Your task to perform on an android device: Search for "lenovo thinkpad" on bestbuy.com, select the first entry, and add it to the cart. Image 0: 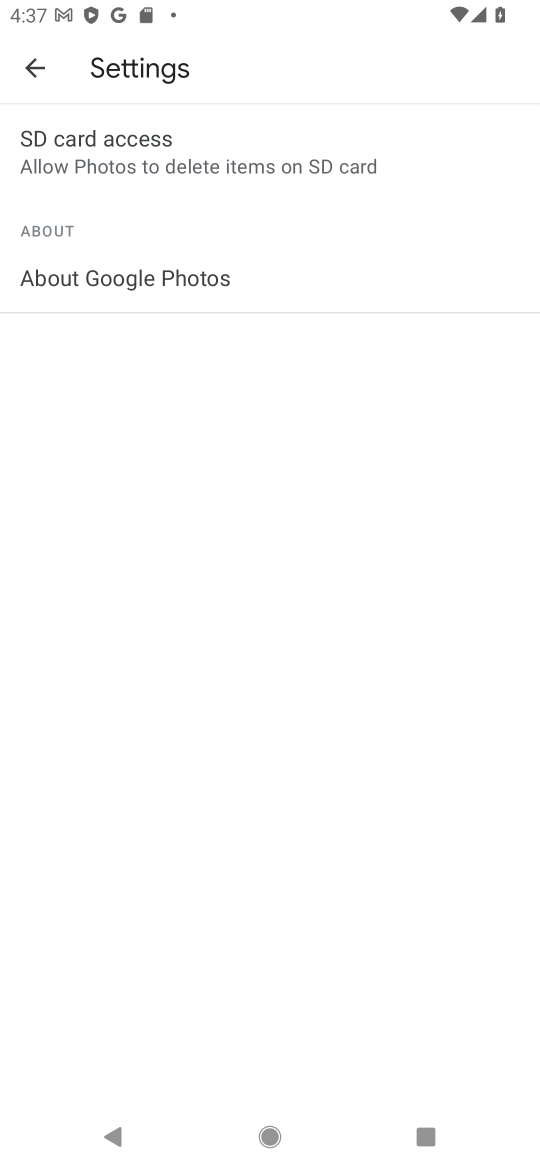
Step 0: press home button
Your task to perform on an android device: Search for "lenovo thinkpad" on bestbuy.com, select the first entry, and add it to the cart. Image 1: 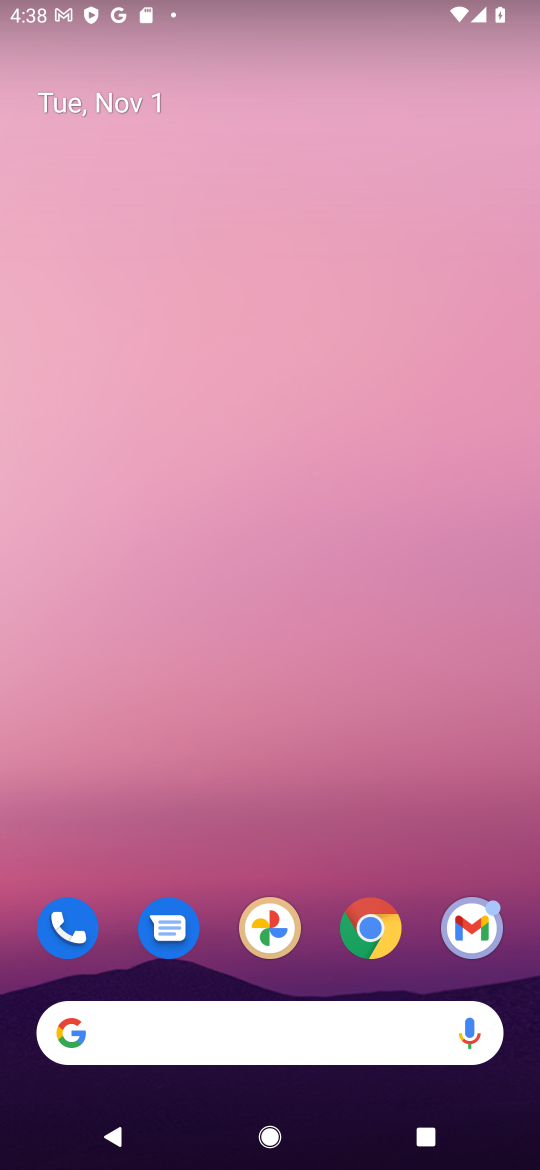
Step 1: click (373, 930)
Your task to perform on an android device: Search for "lenovo thinkpad" on bestbuy.com, select the first entry, and add it to the cart. Image 2: 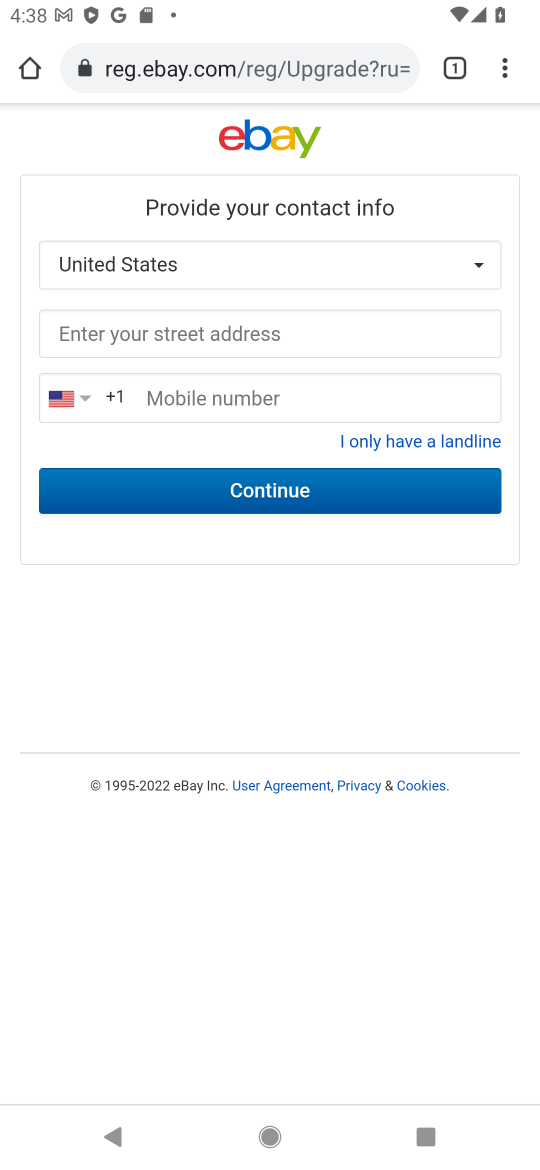
Step 2: click (311, 66)
Your task to perform on an android device: Search for "lenovo thinkpad" on bestbuy.com, select the first entry, and add it to the cart. Image 3: 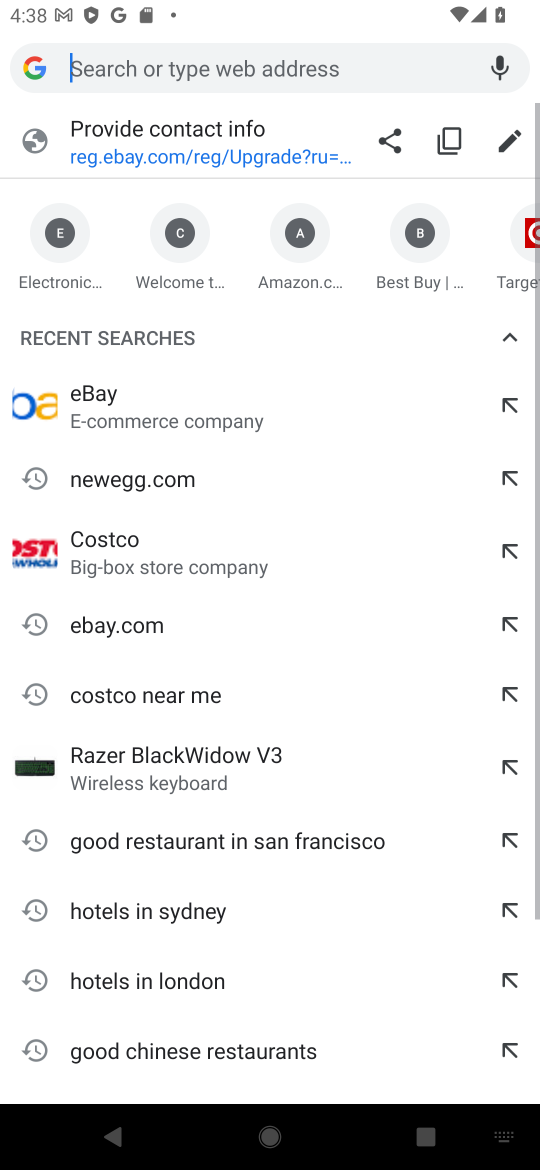
Step 3: type "bestbuy.com"
Your task to perform on an android device: Search for "lenovo thinkpad" on bestbuy.com, select the first entry, and add it to the cart. Image 4: 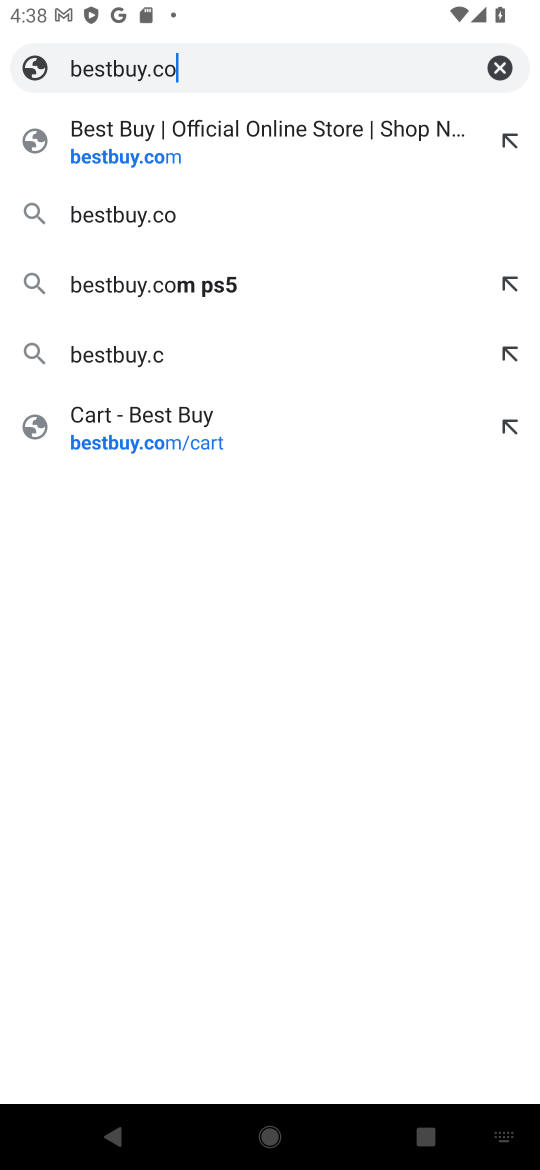
Step 4: type ""
Your task to perform on an android device: Search for "lenovo thinkpad" on bestbuy.com, select the first entry, and add it to the cart. Image 5: 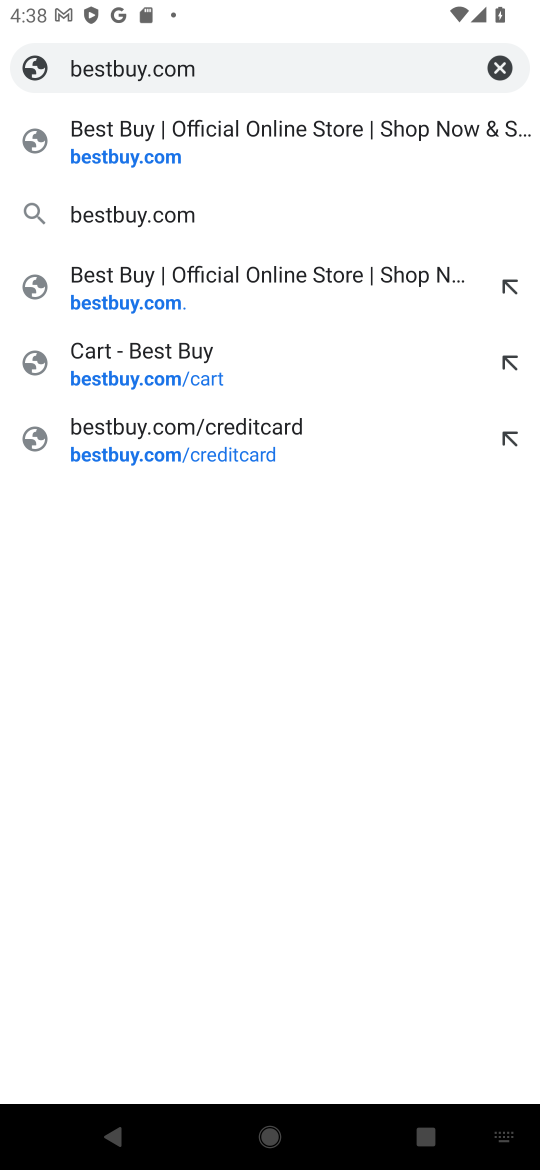
Step 5: press enter
Your task to perform on an android device: Search for "lenovo thinkpad" on bestbuy.com, select the first entry, and add it to the cart. Image 6: 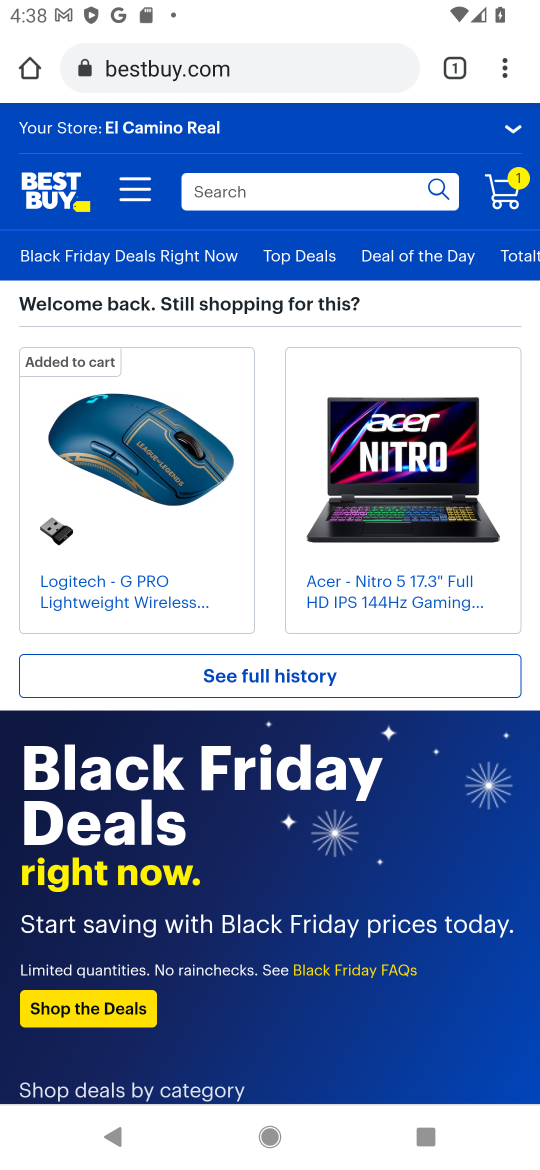
Step 6: click (337, 200)
Your task to perform on an android device: Search for "lenovo thinkpad" on bestbuy.com, select the first entry, and add it to the cart. Image 7: 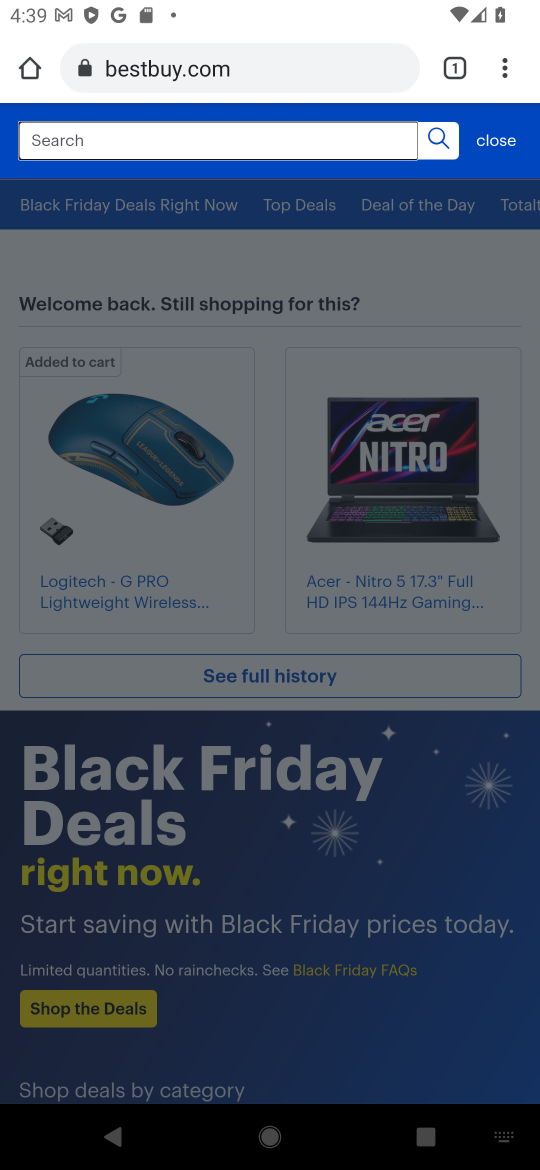
Step 7: type "lenovo thinkpad"
Your task to perform on an android device: Search for "lenovo thinkpad" on bestbuy.com, select the first entry, and add it to the cart. Image 8: 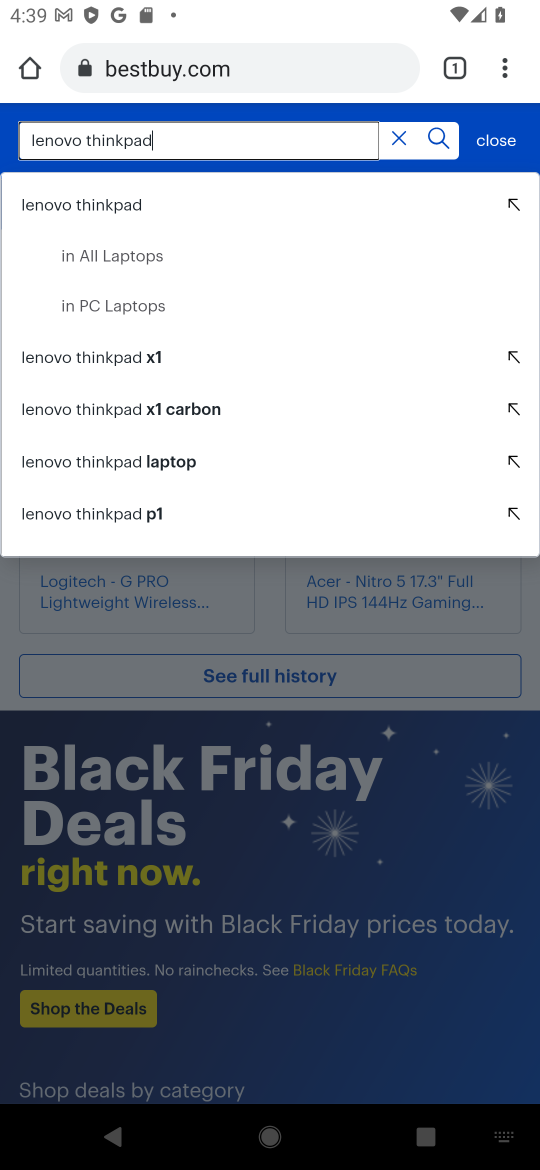
Step 8: press enter
Your task to perform on an android device: Search for "lenovo thinkpad" on bestbuy.com, select the first entry, and add it to the cart. Image 9: 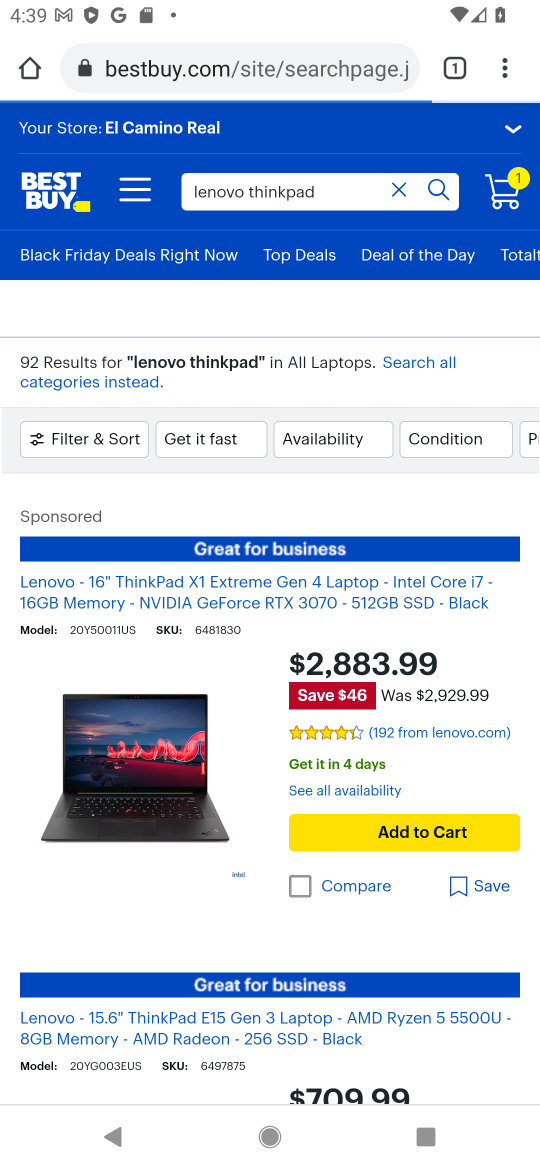
Step 9: click (338, 608)
Your task to perform on an android device: Search for "lenovo thinkpad" on bestbuy.com, select the first entry, and add it to the cart. Image 10: 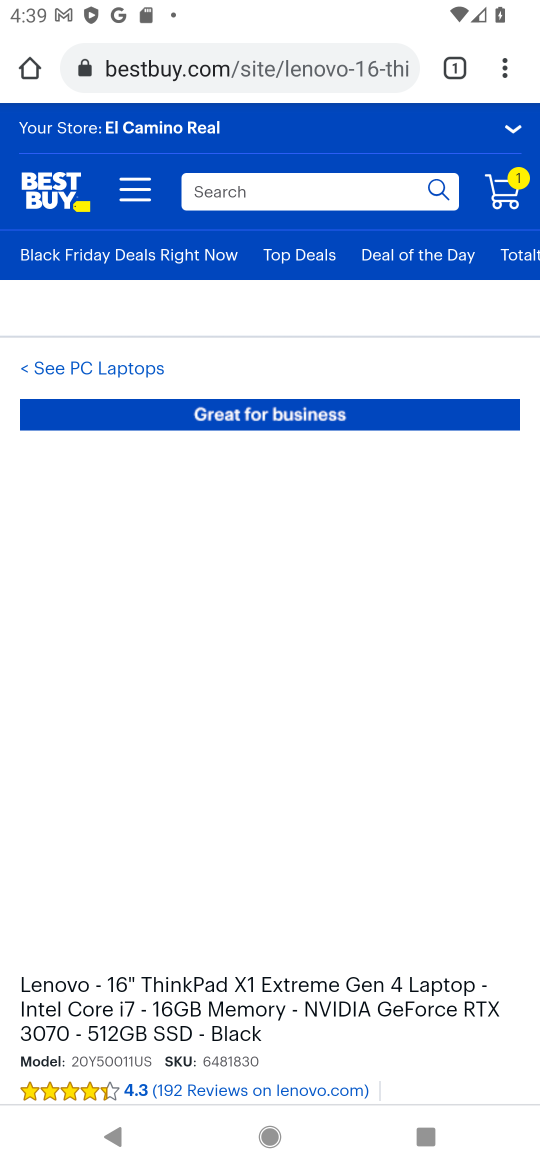
Step 10: drag from (394, 1018) to (400, 892)
Your task to perform on an android device: Search for "lenovo thinkpad" on bestbuy.com, select the first entry, and add it to the cart. Image 11: 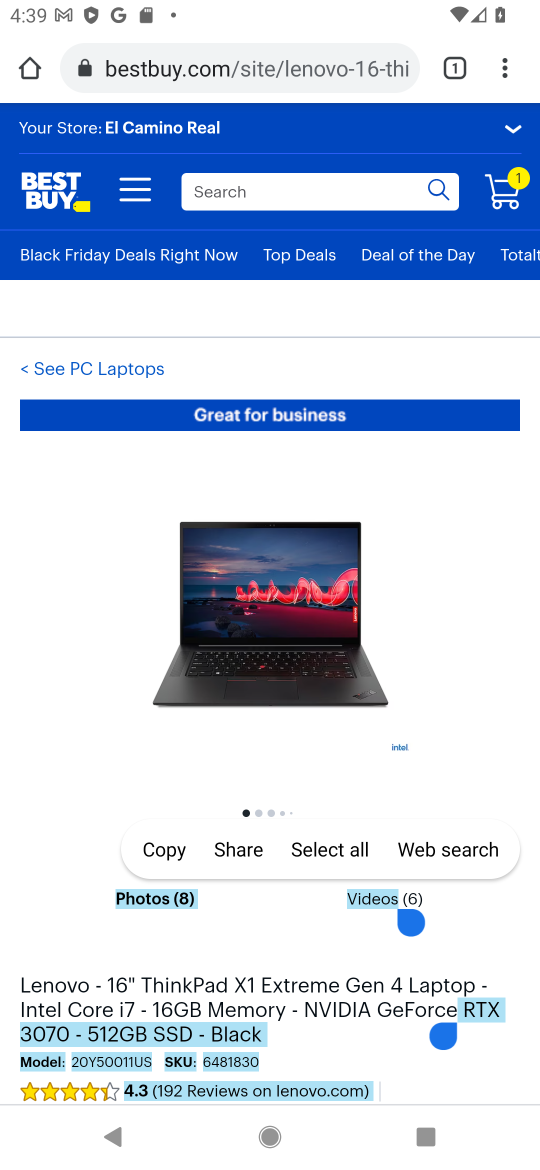
Step 11: click (241, 990)
Your task to perform on an android device: Search for "lenovo thinkpad" on bestbuy.com, select the first entry, and add it to the cart. Image 12: 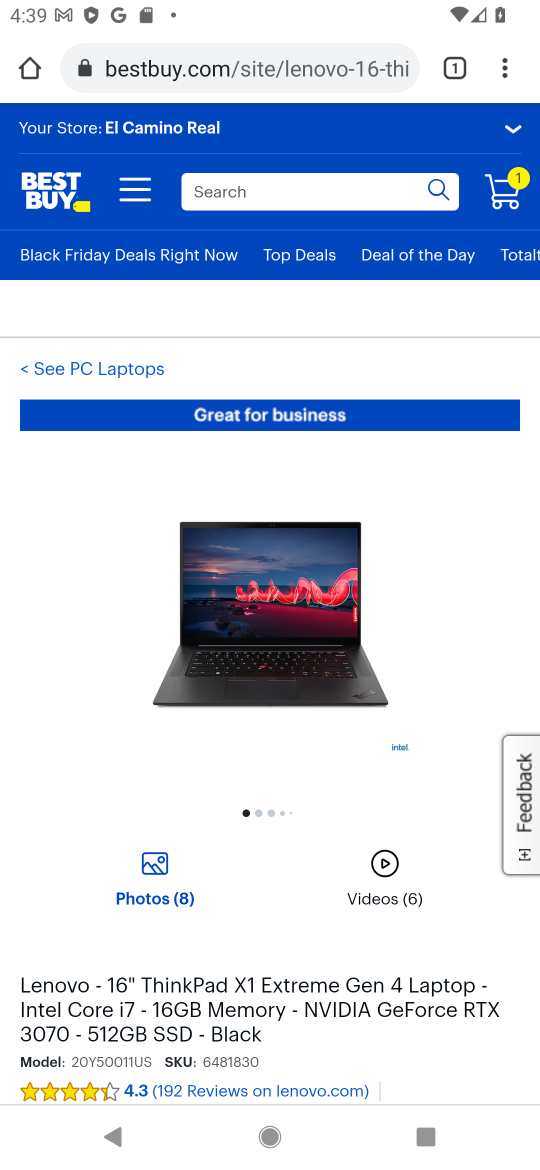
Step 12: drag from (374, 1039) to (278, 306)
Your task to perform on an android device: Search for "lenovo thinkpad" on bestbuy.com, select the first entry, and add it to the cart. Image 13: 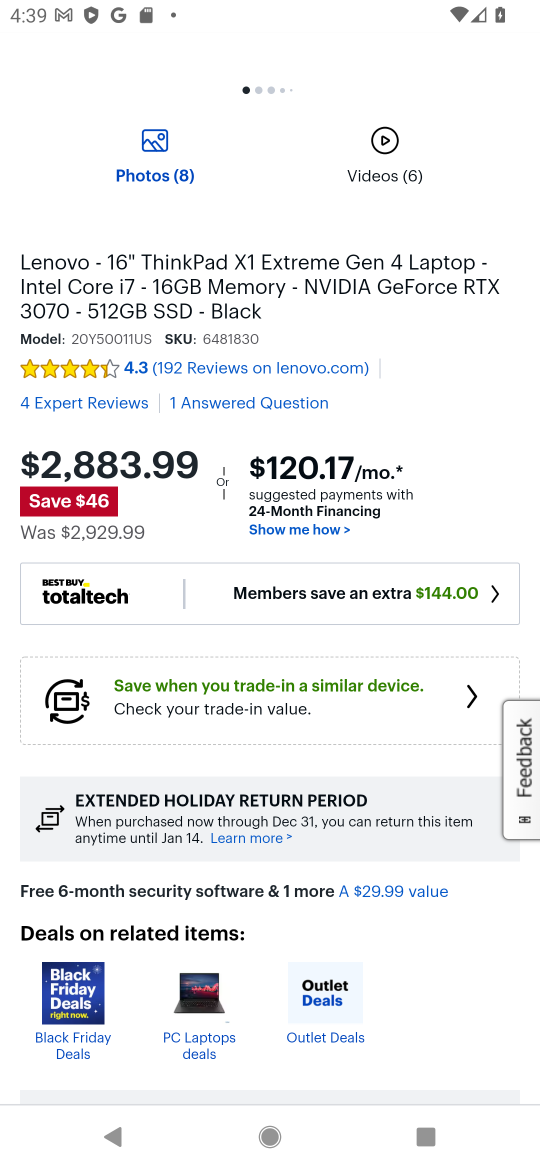
Step 13: drag from (346, 943) to (327, 458)
Your task to perform on an android device: Search for "lenovo thinkpad" on bestbuy.com, select the first entry, and add it to the cart. Image 14: 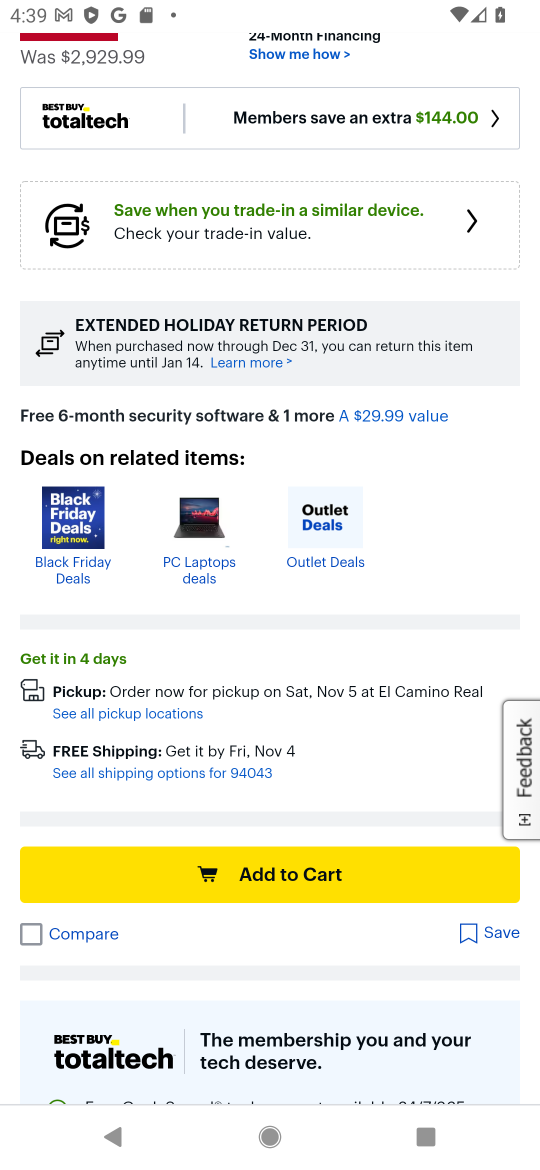
Step 14: click (323, 880)
Your task to perform on an android device: Search for "lenovo thinkpad" on bestbuy.com, select the first entry, and add it to the cart. Image 15: 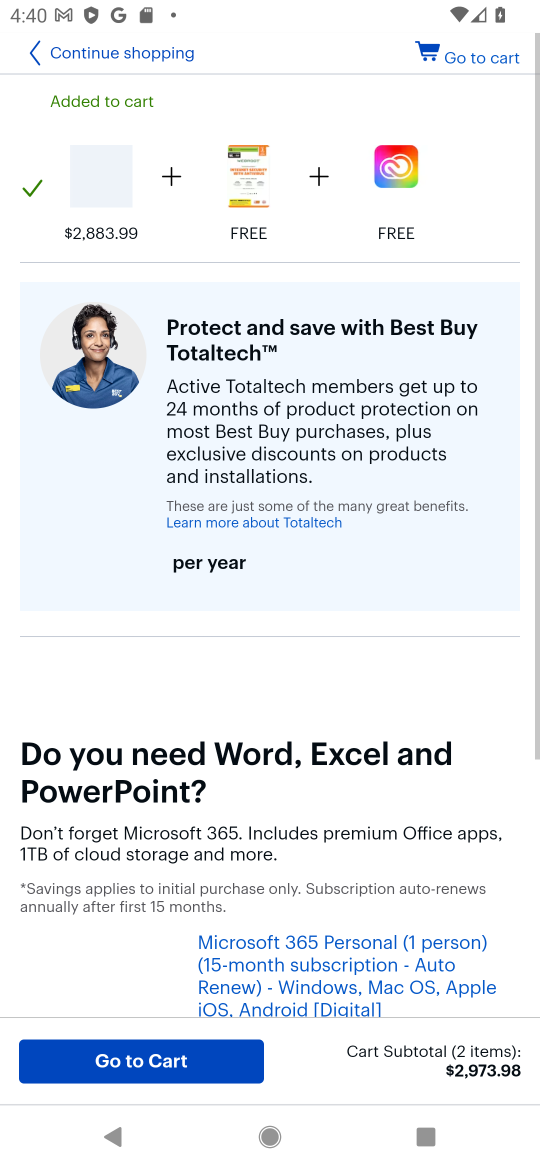
Step 15: click (169, 1073)
Your task to perform on an android device: Search for "lenovo thinkpad" on bestbuy.com, select the first entry, and add it to the cart. Image 16: 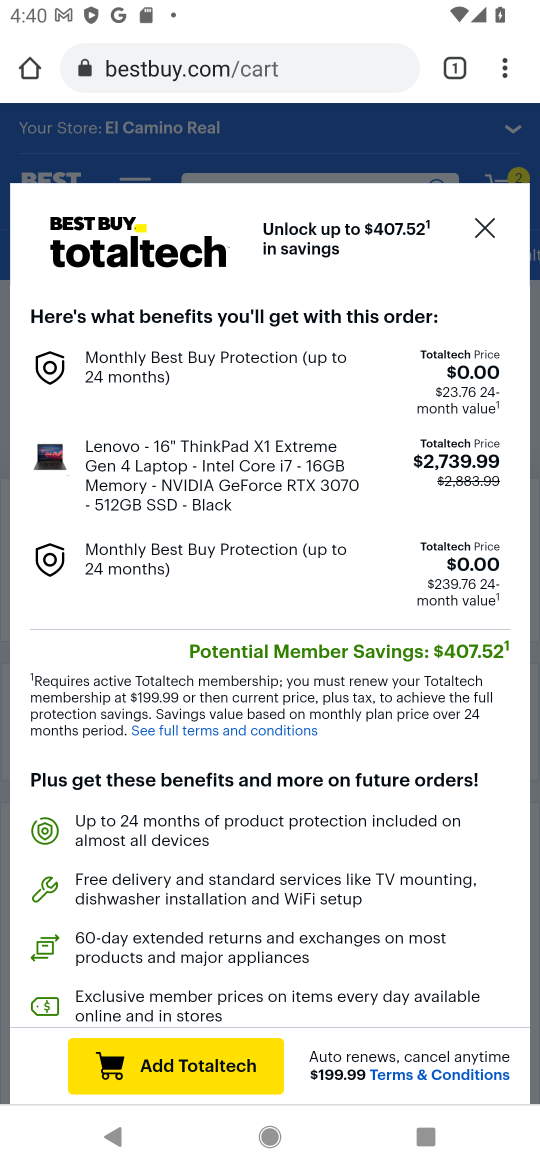
Step 16: click (480, 230)
Your task to perform on an android device: Search for "lenovo thinkpad" on bestbuy.com, select the first entry, and add it to the cart. Image 17: 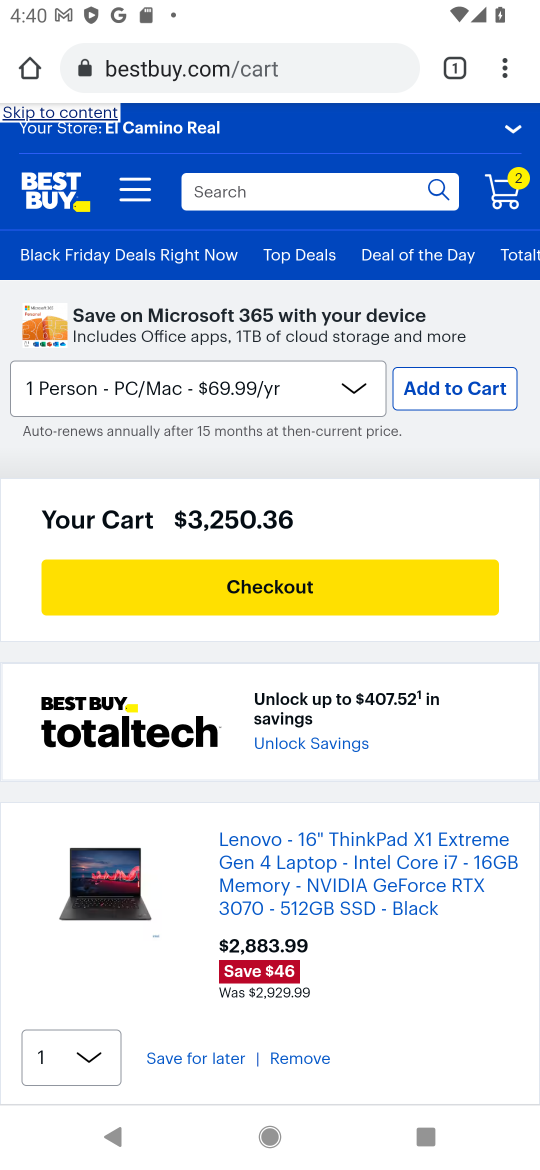
Step 17: click (384, 587)
Your task to perform on an android device: Search for "lenovo thinkpad" on bestbuy.com, select the first entry, and add it to the cart. Image 18: 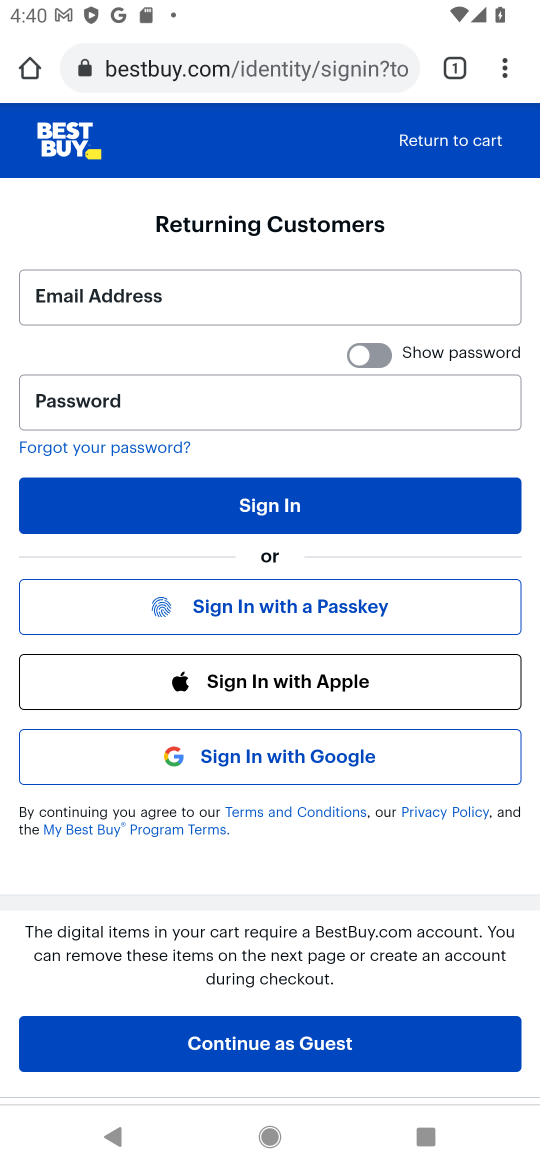
Step 18: click (333, 1042)
Your task to perform on an android device: Search for "lenovo thinkpad" on bestbuy.com, select the first entry, and add it to the cart. Image 19: 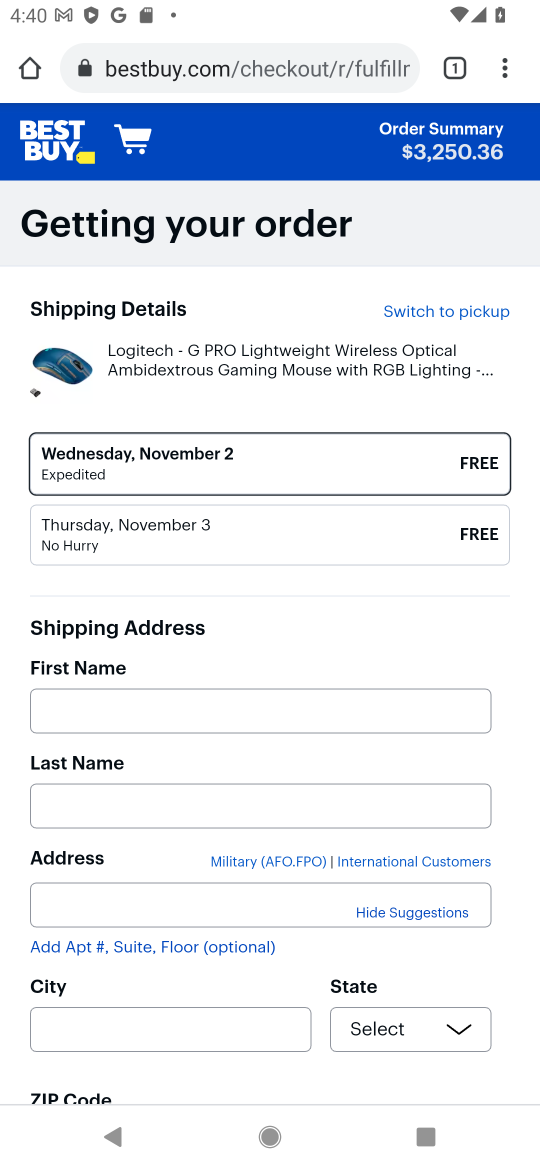
Step 19: task complete